Your task to perform on an android device: turn pop-ups off in chrome Image 0: 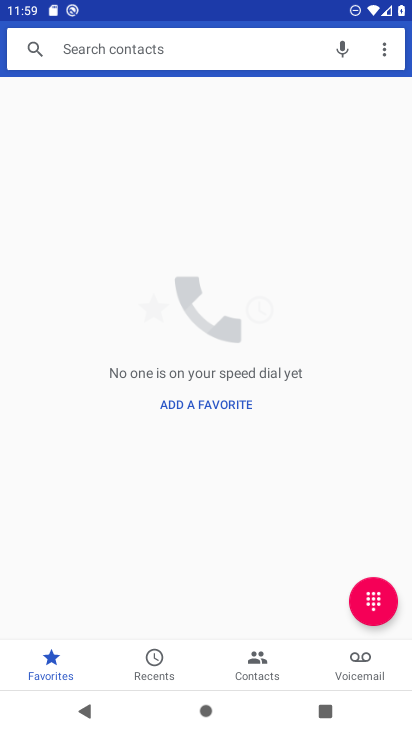
Step 0: press home button
Your task to perform on an android device: turn pop-ups off in chrome Image 1: 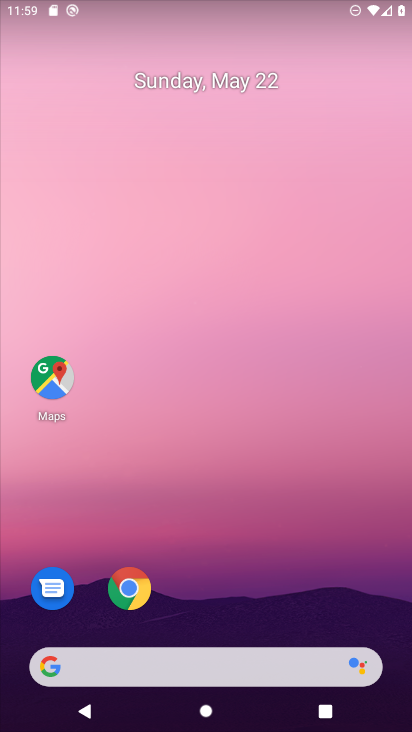
Step 1: click (126, 594)
Your task to perform on an android device: turn pop-ups off in chrome Image 2: 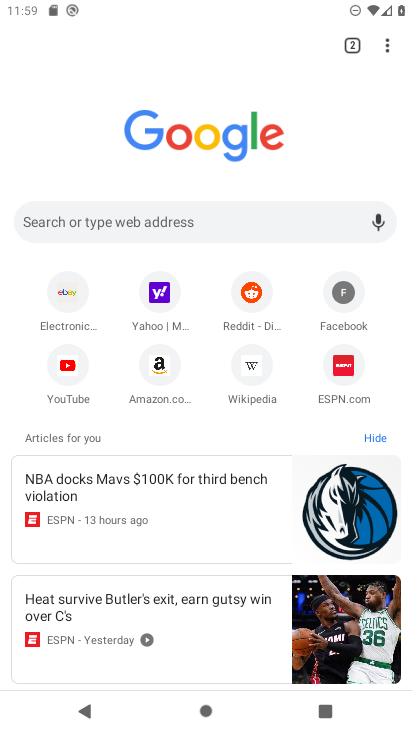
Step 2: click (385, 42)
Your task to perform on an android device: turn pop-ups off in chrome Image 3: 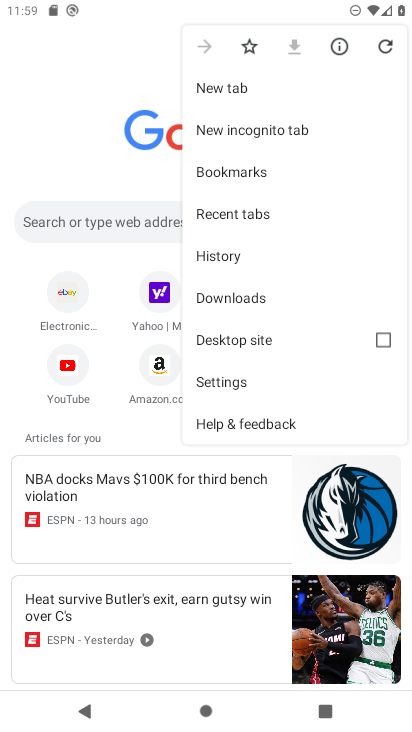
Step 3: click (229, 385)
Your task to perform on an android device: turn pop-ups off in chrome Image 4: 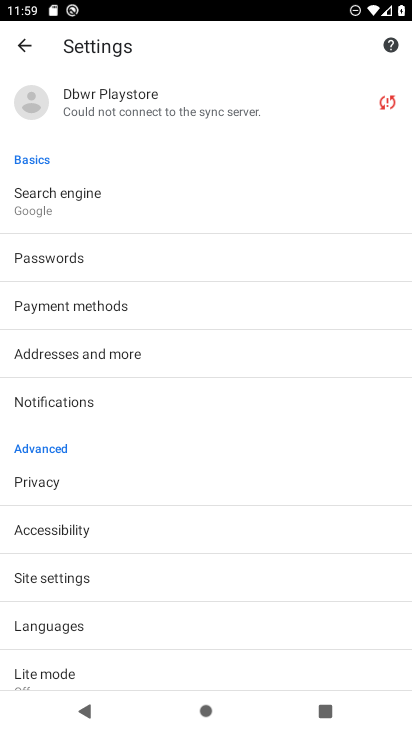
Step 4: click (44, 575)
Your task to perform on an android device: turn pop-ups off in chrome Image 5: 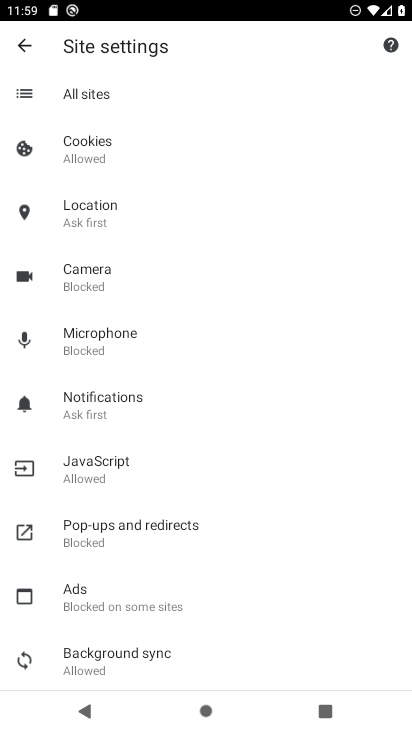
Step 5: click (125, 534)
Your task to perform on an android device: turn pop-ups off in chrome Image 6: 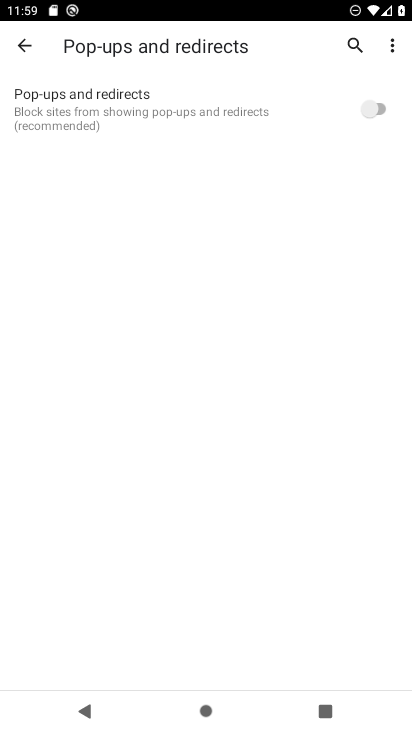
Step 6: task complete